Your task to perform on an android device: turn on the 24-hour format for clock Image 0: 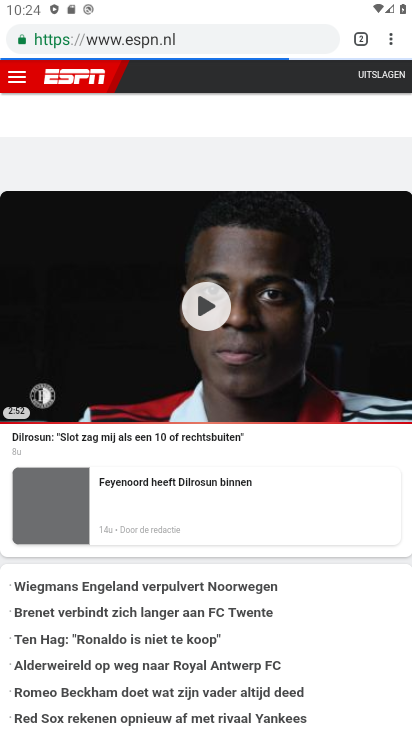
Step 0: press back button
Your task to perform on an android device: turn on the 24-hour format for clock Image 1: 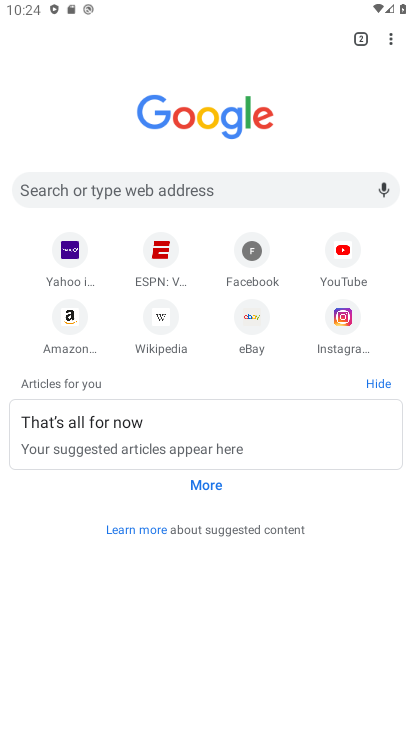
Step 1: press home button
Your task to perform on an android device: turn on the 24-hour format for clock Image 2: 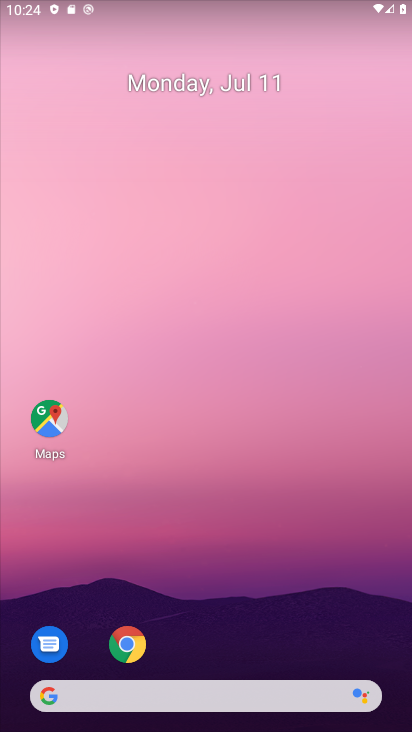
Step 2: drag from (229, 556) to (94, 97)
Your task to perform on an android device: turn on the 24-hour format for clock Image 3: 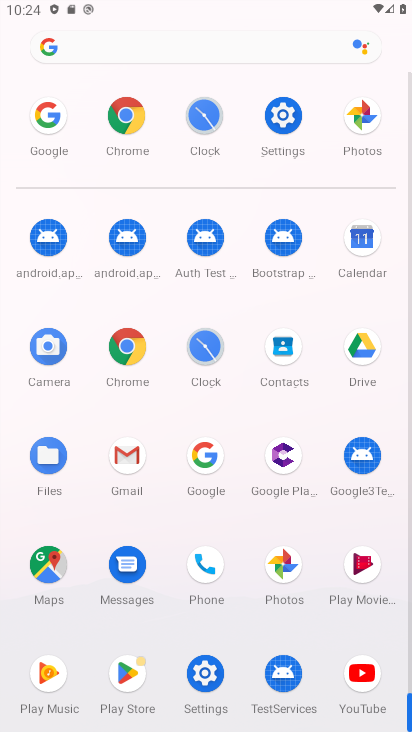
Step 3: click (206, 340)
Your task to perform on an android device: turn on the 24-hour format for clock Image 4: 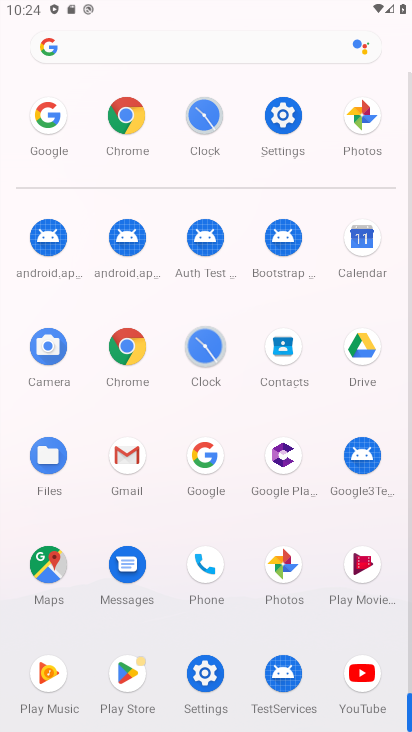
Step 4: click (207, 338)
Your task to perform on an android device: turn on the 24-hour format for clock Image 5: 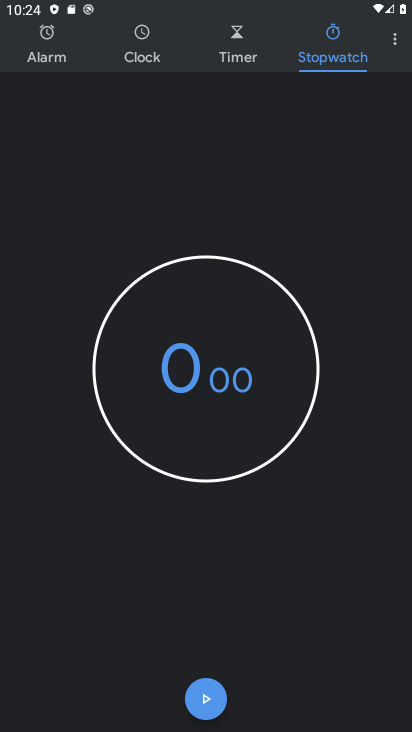
Step 5: click (410, 32)
Your task to perform on an android device: turn on the 24-hour format for clock Image 6: 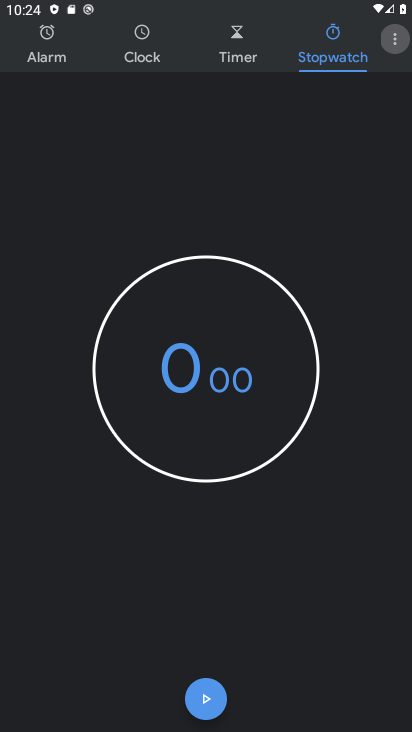
Step 6: click (389, 37)
Your task to perform on an android device: turn on the 24-hour format for clock Image 7: 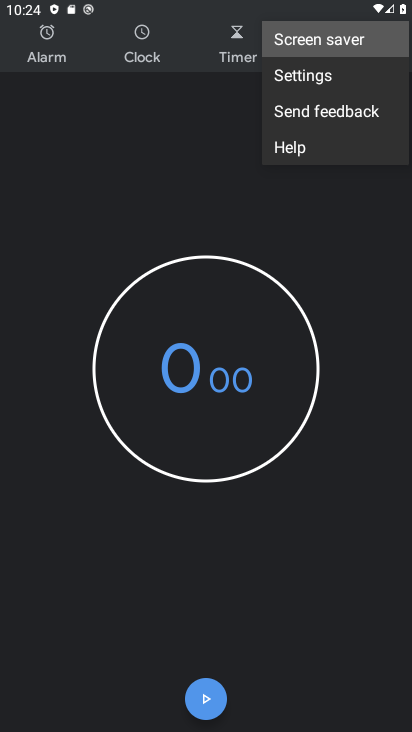
Step 7: click (389, 37)
Your task to perform on an android device: turn on the 24-hour format for clock Image 8: 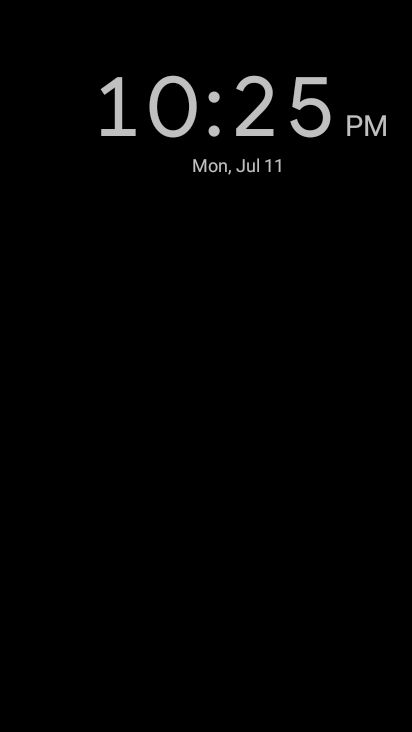
Step 8: press back button
Your task to perform on an android device: turn on the 24-hour format for clock Image 9: 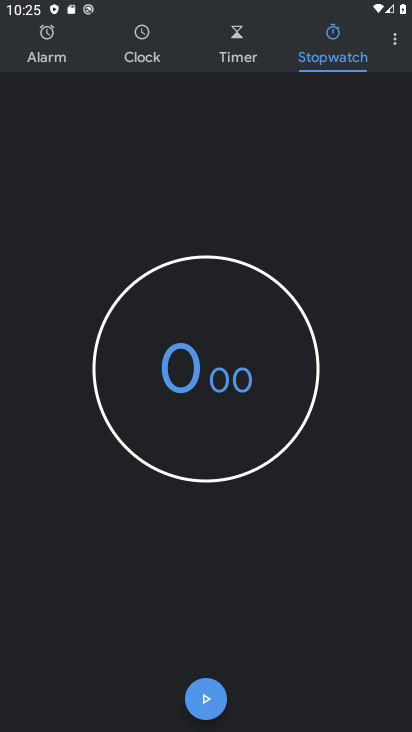
Step 9: click (396, 39)
Your task to perform on an android device: turn on the 24-hour format for clock Image 10: 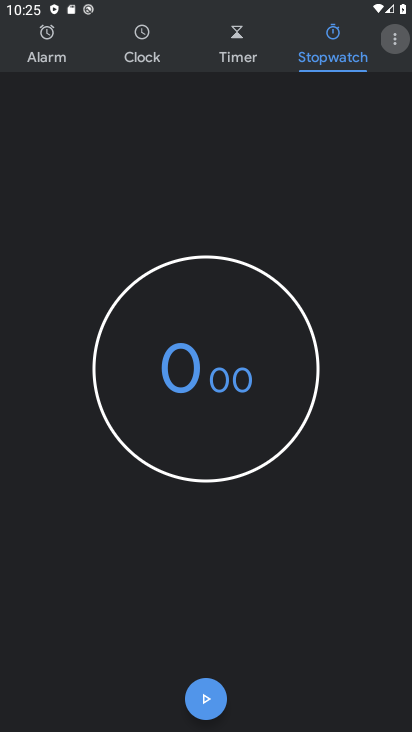
Step 10: click (398, 39)
Your task to perform on an android device: turn on the 24-hour format for clock Image 11: 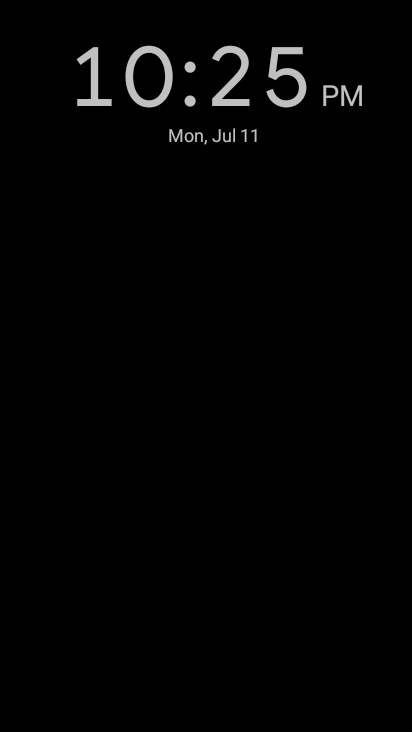
Step 11: press back button
Your task to perform on an android device: turn on the 24-hour format for clock Image 12: 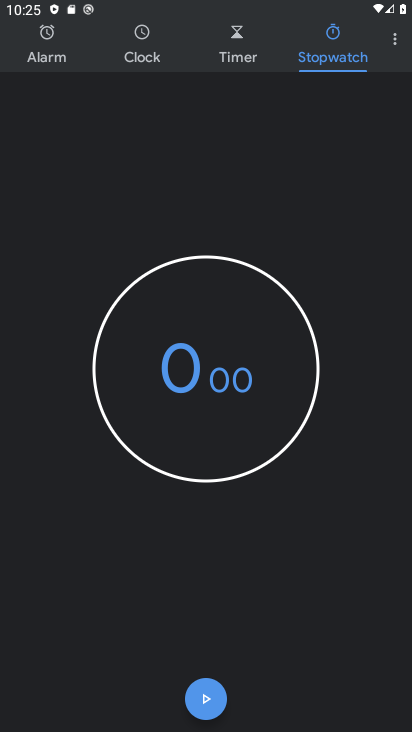
Step 12: click (394, 34)
Your task to perform on an android device: turn on the 24-hour format for clock Image 13: 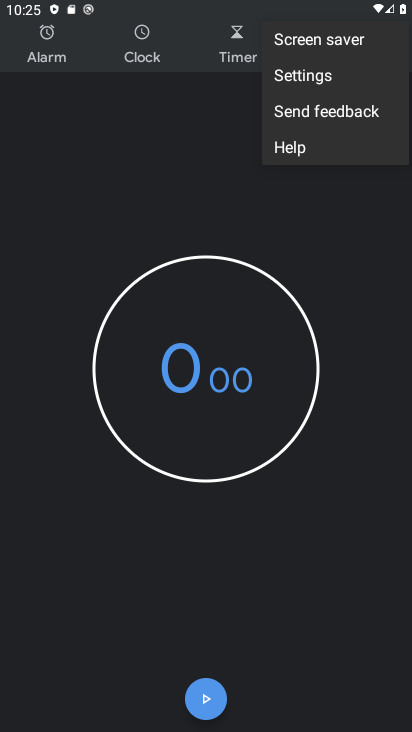
Step 13: click (315, 72)
Your task to perform on an android device: turn on the 24-hour format for clock Image 14: 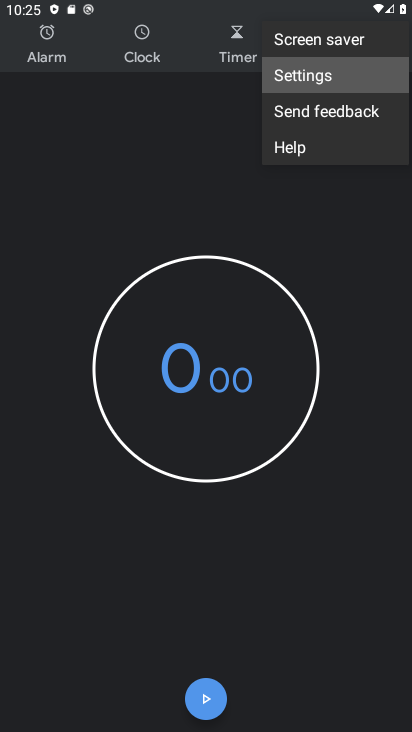
Step 14: click (311, 72)
Your task to perform on an android device: turn on the 24-hour format for clock Image 15: 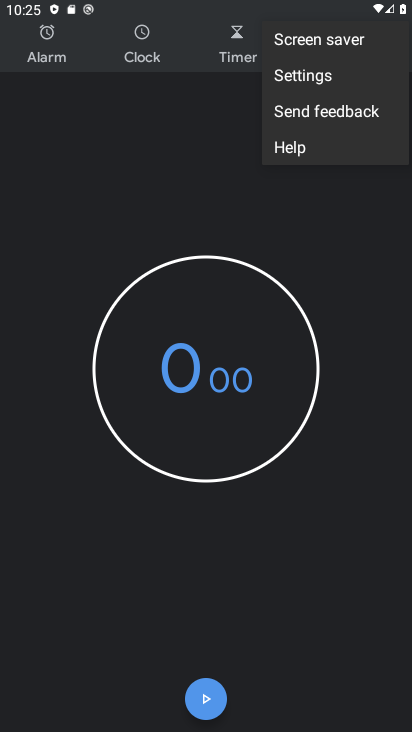
Step 15: click (310, 72)
Your task to perform on an android device: turn on the 24-hour format for clock Image 16: 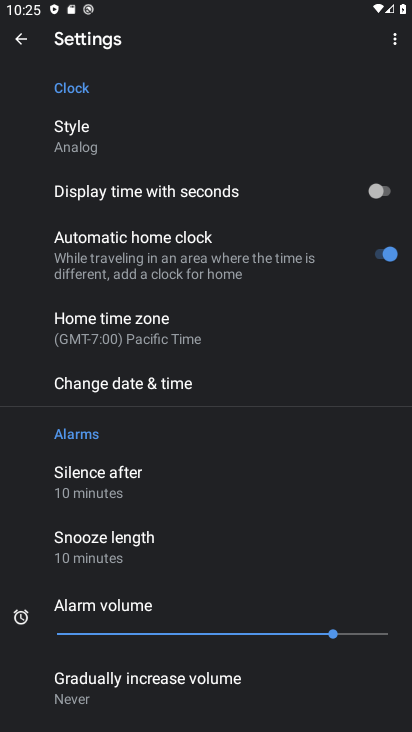
Step 16: drag from (124, 598) to (124, 271)
Your task to perform on an android device: turn on the 24-hour format for clock Image 17: 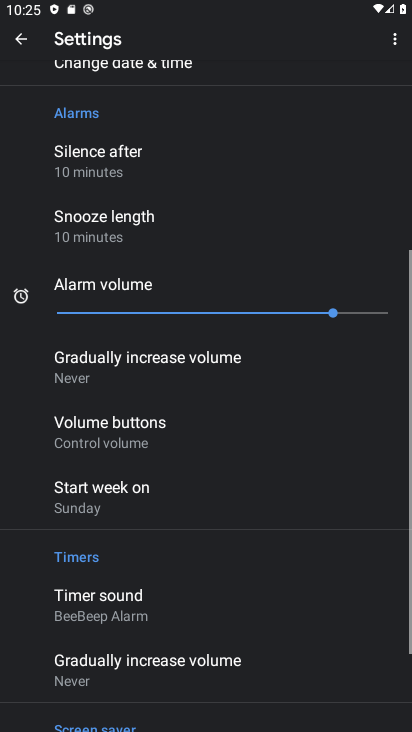
Step 17: drag from (199, 531) to (179, 197)
Your task to perform on an android device: turn on the 24-hour format for clock Image 18: 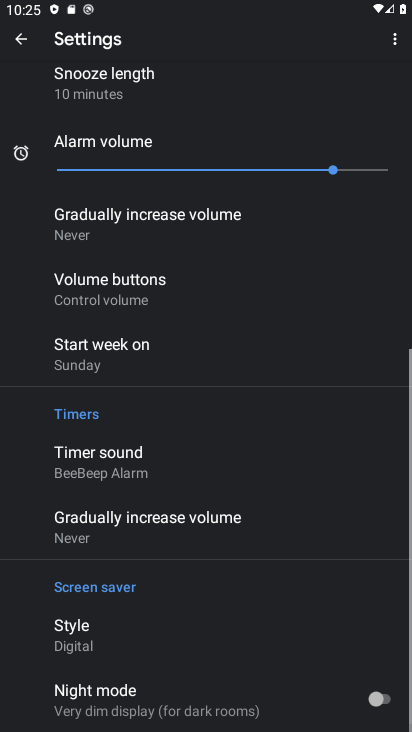
Step 18: drag from (229, 486) to (229, 207)
Your task to perform on an android device: turn on the 24-hour format for clock Image 19: 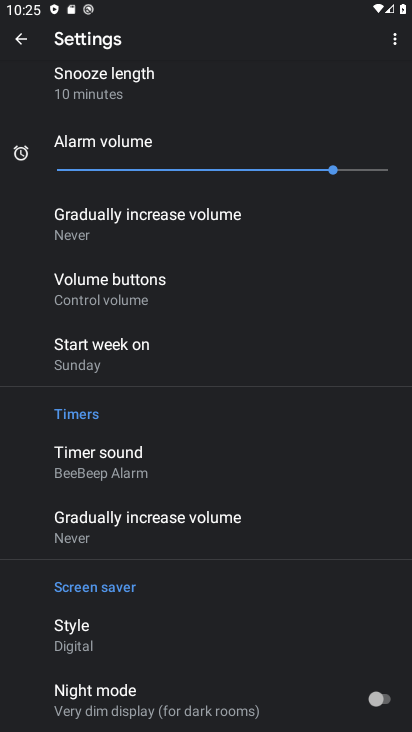
Step 19: drag from (97, 132) to (102, 452)
Your task to perform on an android device: turn on the 24-hour format for clock Image 20: 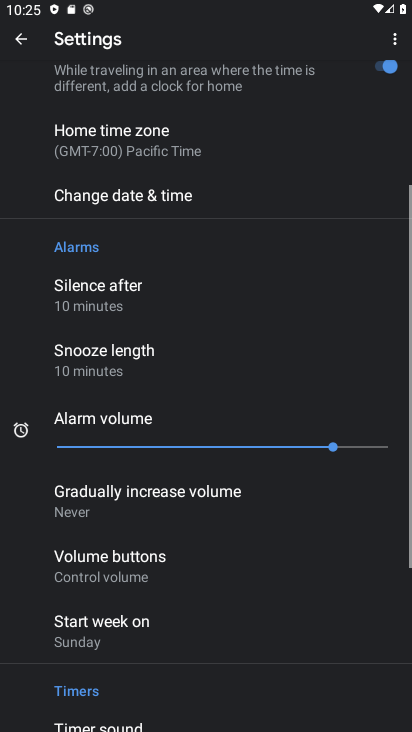
Step 20: drag from (122, 142) to (129, 487)
Your task to perform on an android device: turn on the 24-hour format for clock Image 21: 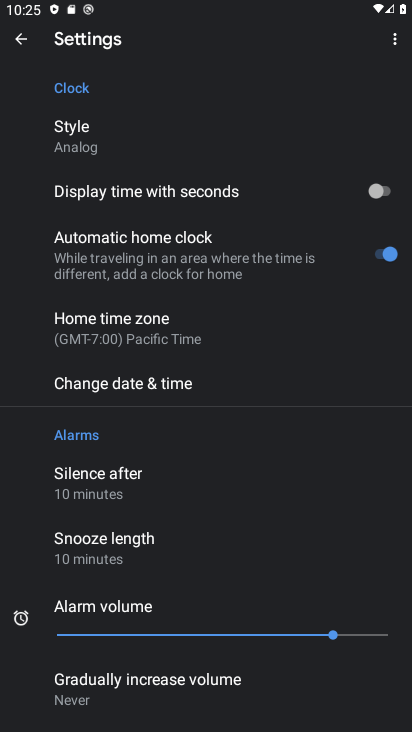
Step 21: click (118, 381)
Your task to perform on an android device: turn on the 24-hour format for clock Image 22: 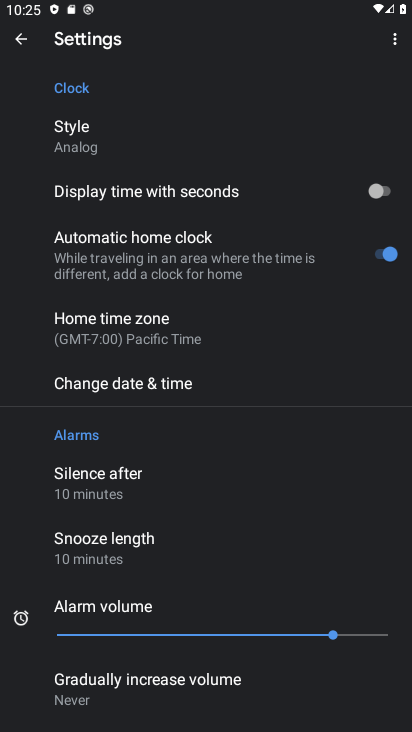
Step 22: click (118, 381)
Your task to perform on an android device: turn on the 24-hour format for clock Image 23: 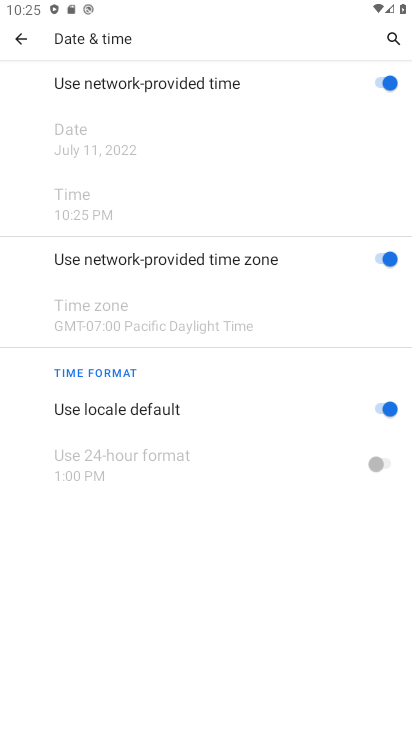
Step 23: click (379, 456)
Your task to perform on an android device: turn on the 24-hour format for clock Image 24: 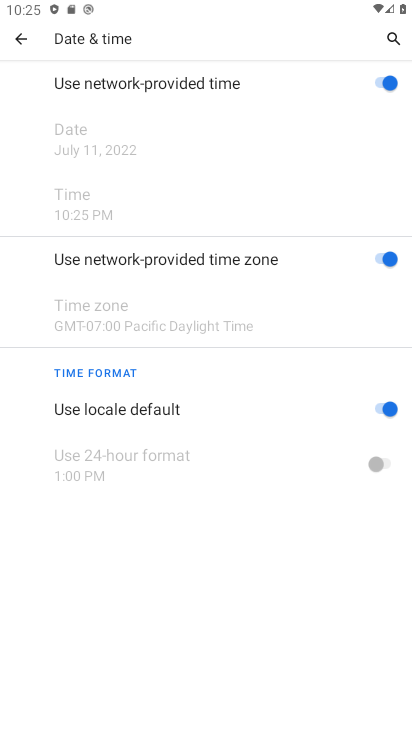
Step 24: click (388, 409)
Your task to perform on an android device: turn on the 24-hour format for clock Image 25: 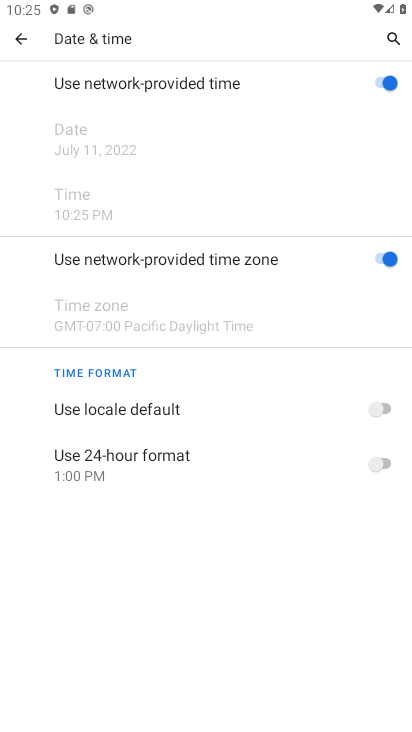
Step 25: click (379, 462)
Your task to perform on an android device: turn on the 24-hour format for clock Image 26: 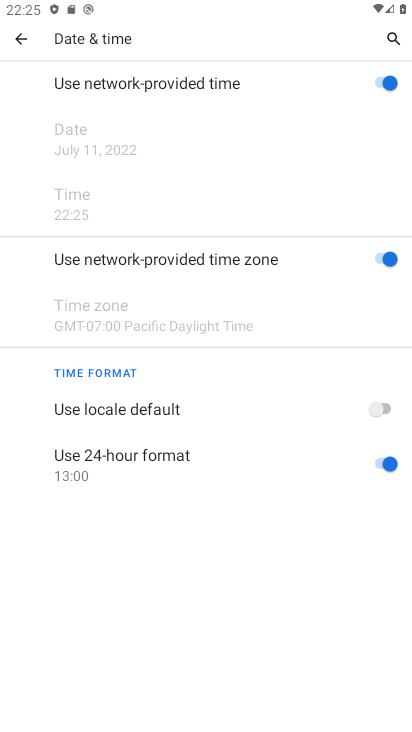
Step 26: task complete